Your task to perform on an android device: set an alarm Image 0: 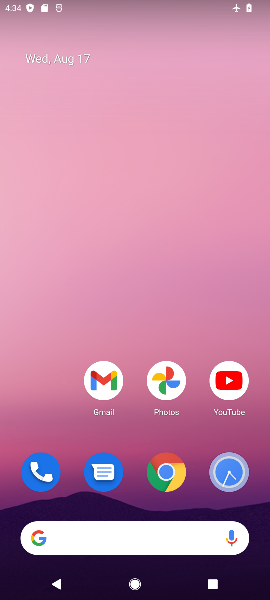
Step 0: drag from (129, 434) to (138, 100)
Your task to perform on an android device: set an alarm Image 1: 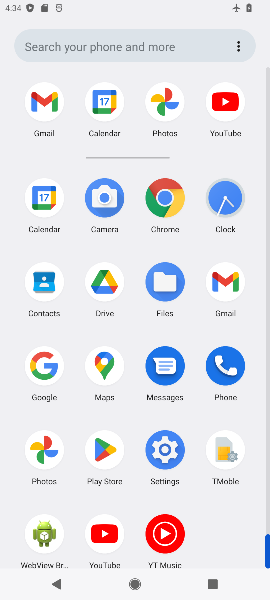
Step 1: click (234, 190)
Your task to perform on an android device: set an alarm Image 2: 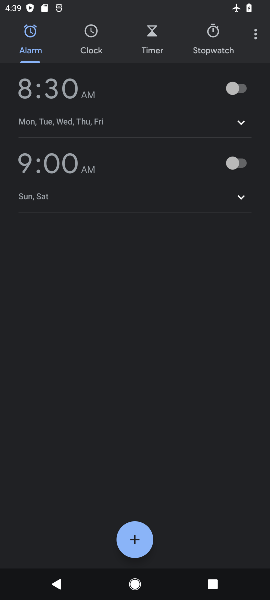
Step 2: click (246, 85)
Your task to perform on an android device: set an alarm Image 3: 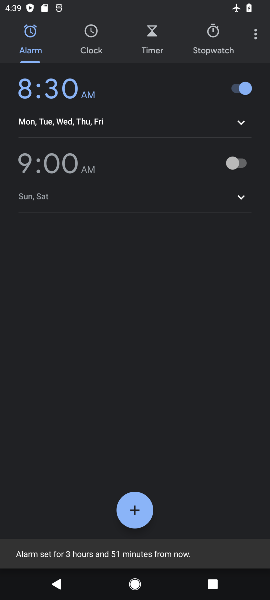
Step 3: task complete